Your task to perform on an android device: Open internet settings Image 0: 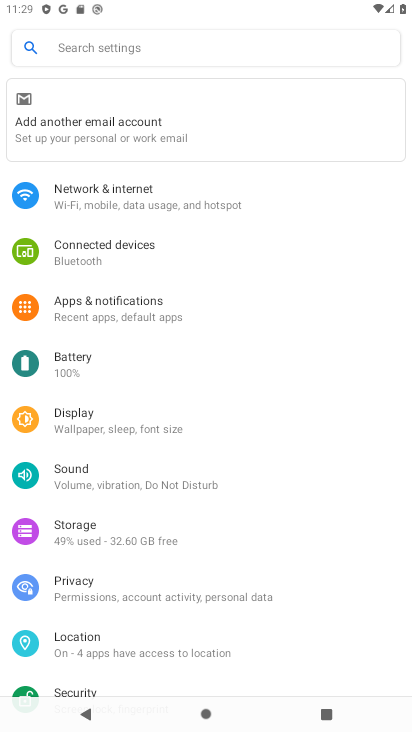
Step 0: click (134, 191)
Your task to perform on an android device: Open internet settings Image 1: 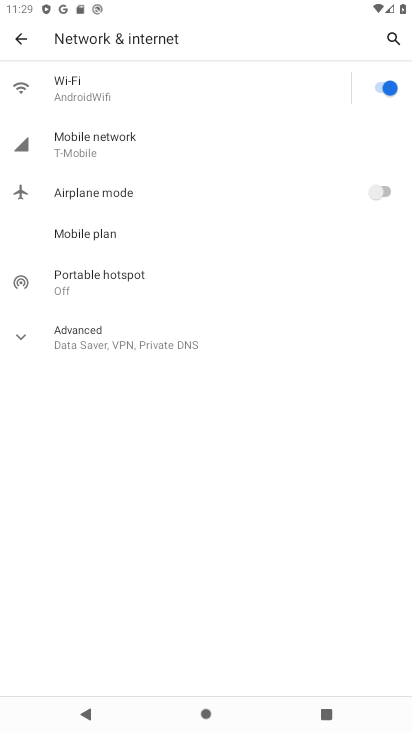
Step 1: press home button
Your task to perform on an android device: Open internet settings Image 2: 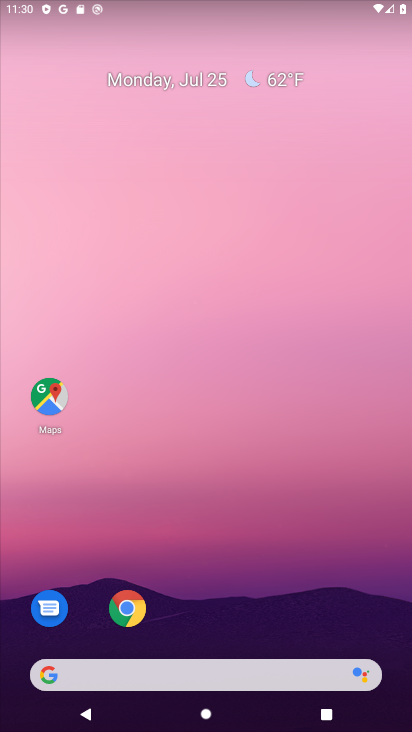
Step 2: drag from (222, 625) to (268, 312)
Your task to perform on an android device: Open internet settings Image 3: 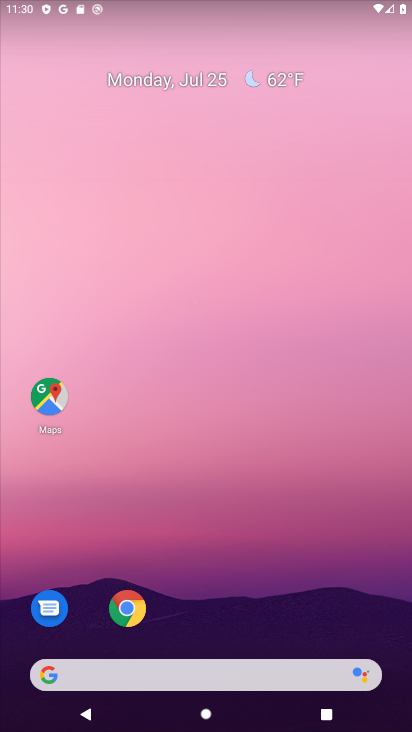
Step 3: drag from (275, 622) to (241, 223)
Your task to perform on an android device: Open internet settings Image 4: 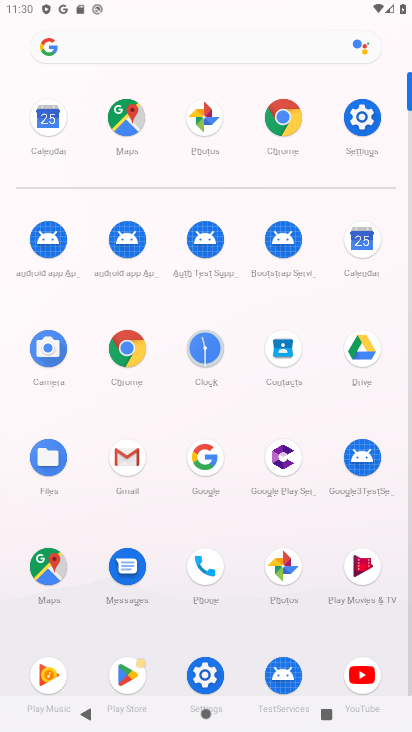
Step 4: click (358, 121)
Your task to perform on an android device: Open internet settings Image 5: 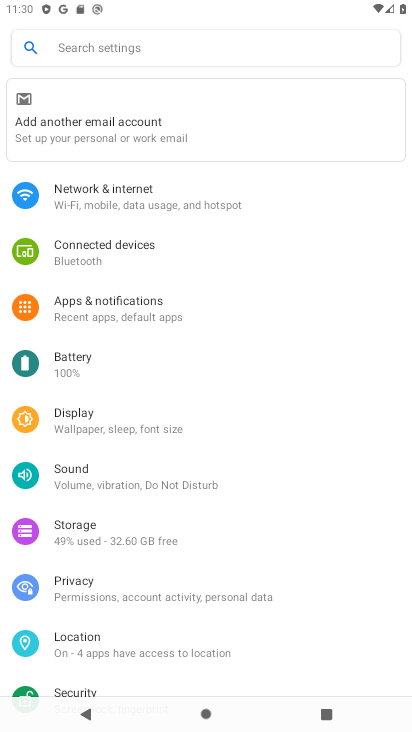
Step 5: click (119, 192)
Your task to perform on an android device: Open internet settings Image 6: 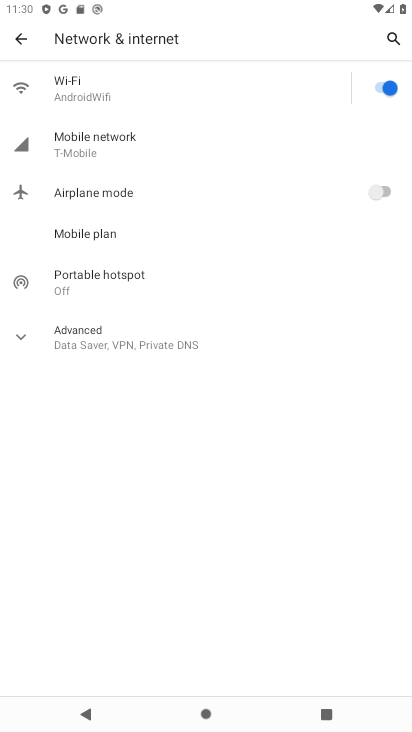
Step 6: task complete